Your task to perform on an android device: star an email in the gmail app Image 0: 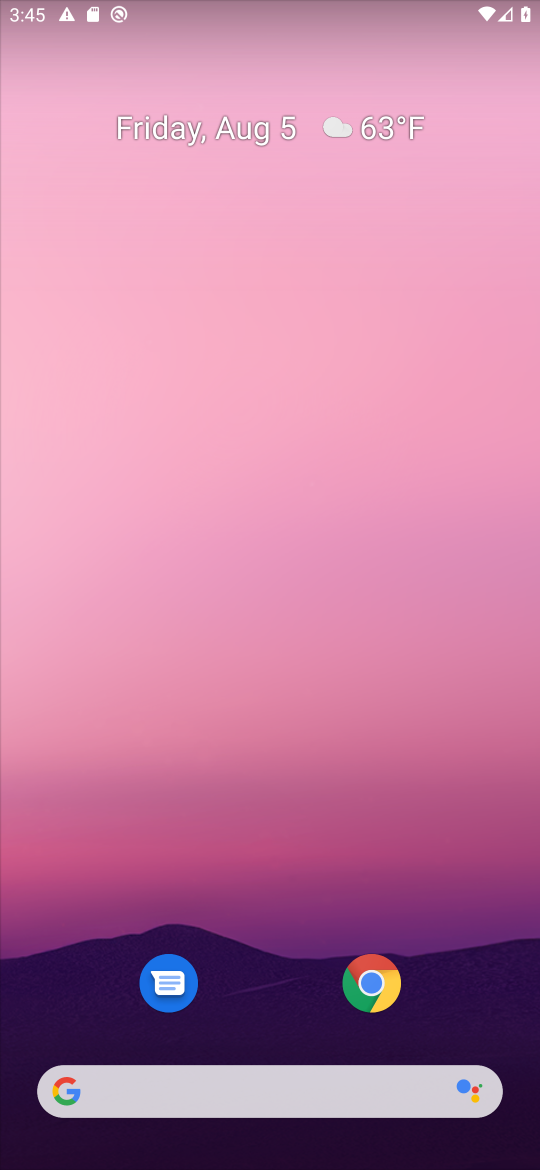
Step 0: drag from (312, 901) to (360, 28)
Your task to perform on an android device: star an email in the gmail app Image 1: 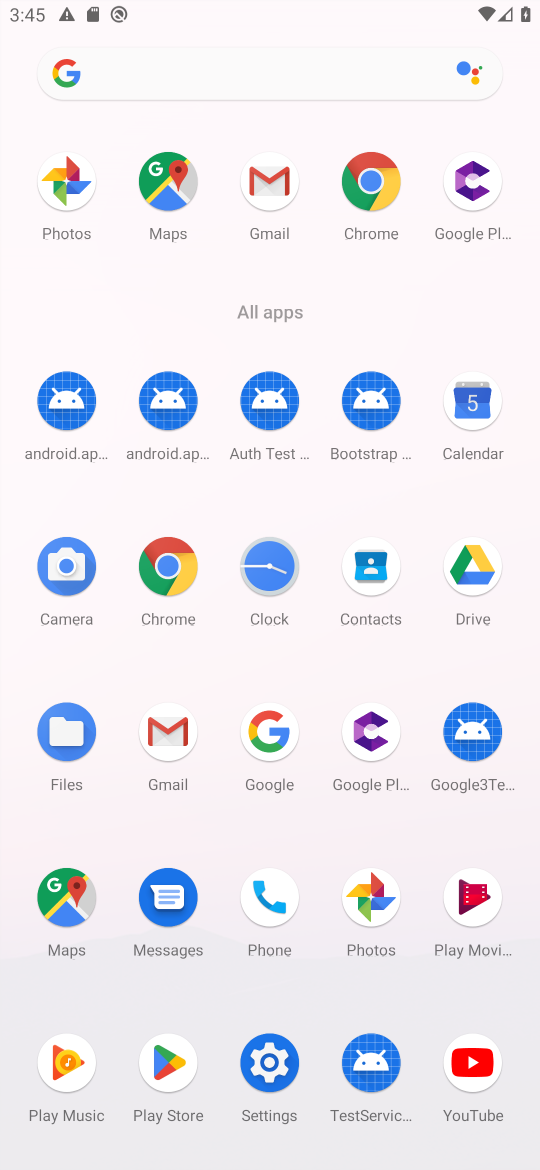
Step 1: click (155, 717)
Your task to perform on an android device: star an email in the gmail app Image 2: 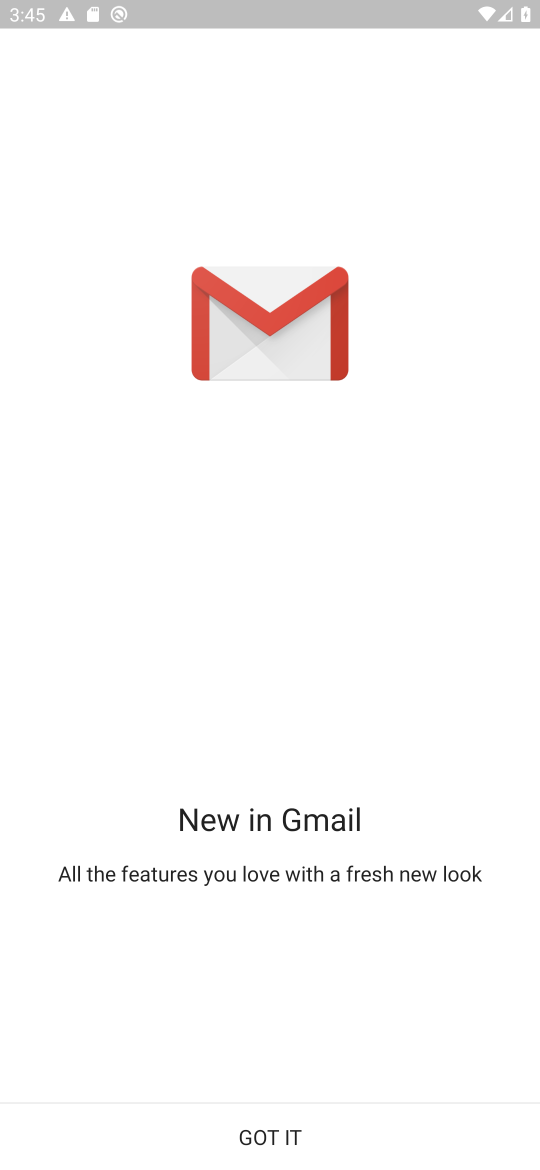
Step 2: click (266, 1140)
Your task to perform on an android device: star an email in the gmail app Image 3: 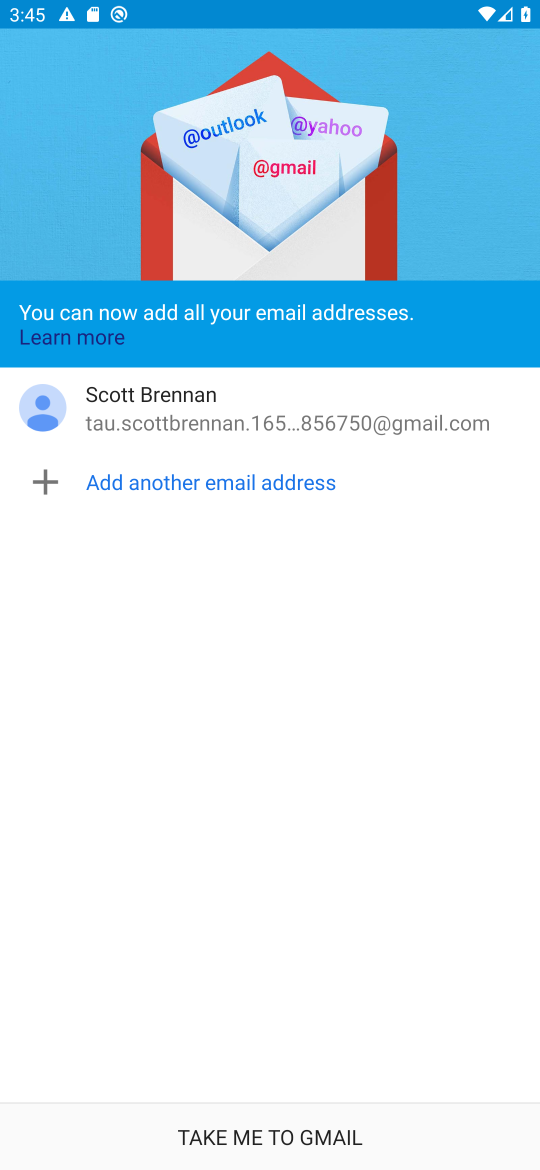
Step 3: click (265, 1140)
Your task to perform on an android device: star an email in the gmail app Image 4: 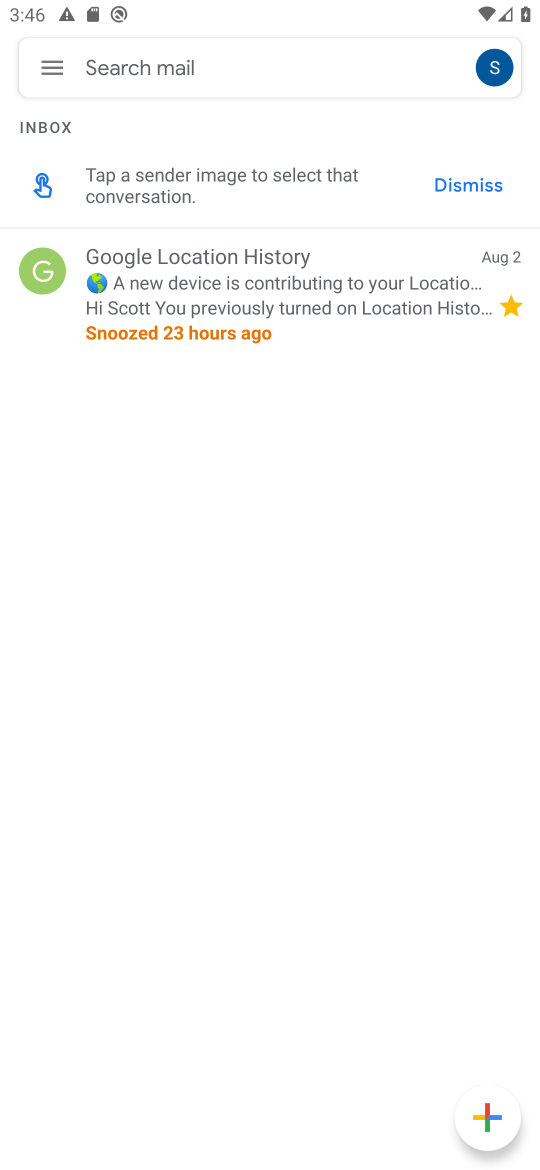
Step 4: click (39, 80)
Your task to perform on an android device: star an email in the gmail app Image 5: 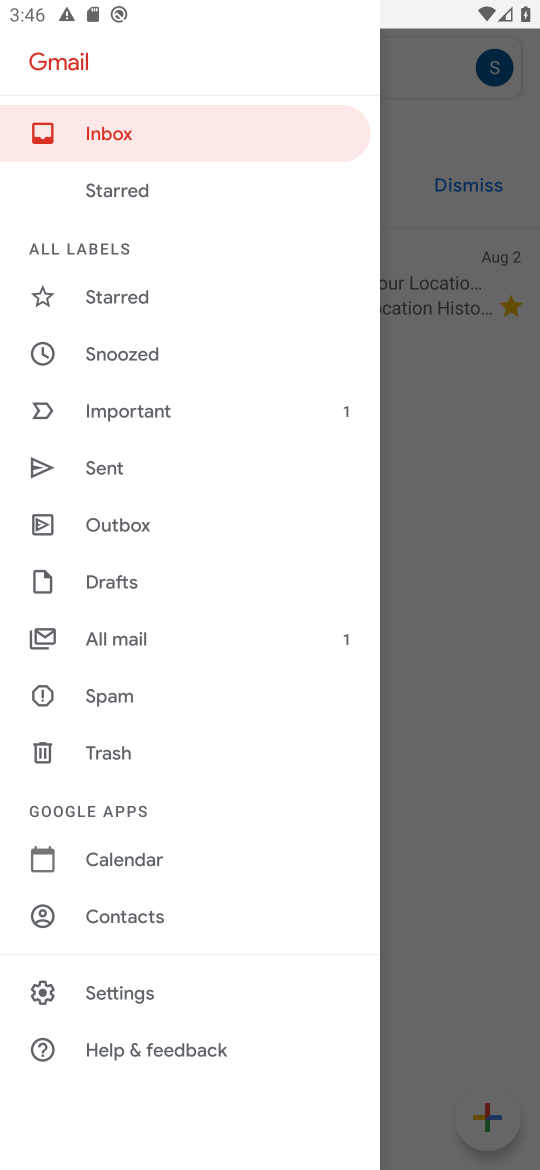
Step 5: click (261, 639)
Your task to perform on an android device: star an email in the gmail app Image 6: 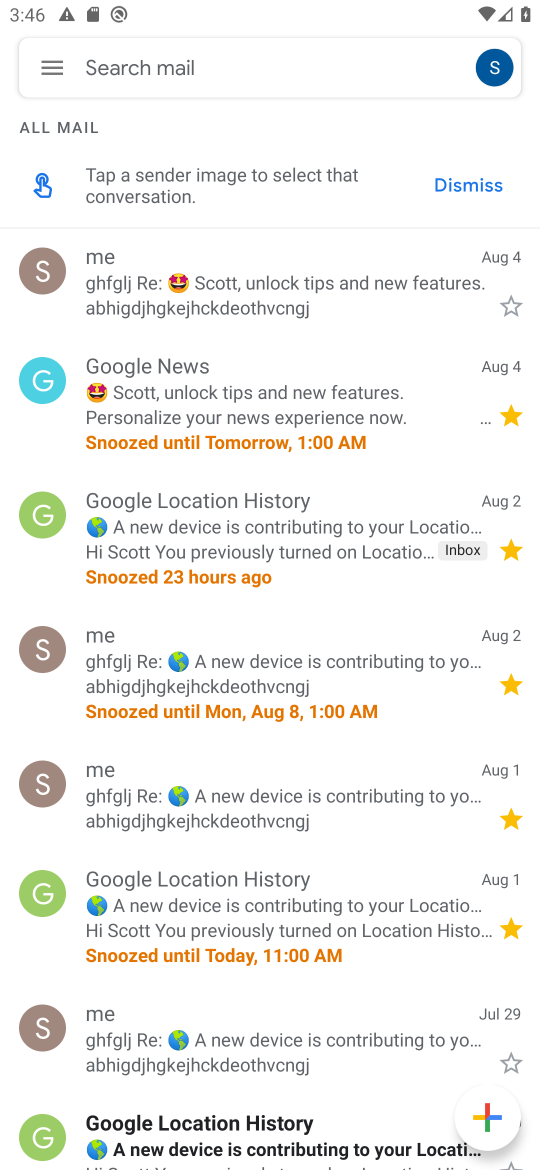
Step 6: click (509, 305)
Your task to perform on an android device: star an email in the gmail app Image 7: 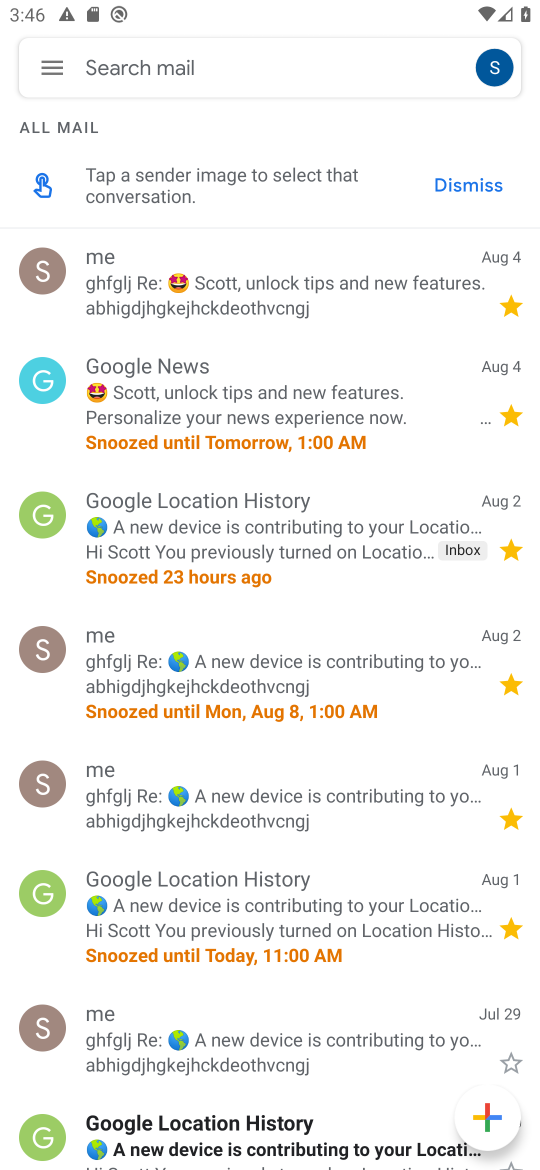
Step 7: task complete